Your task to perform on an android device: set the stopwatch Image 0: 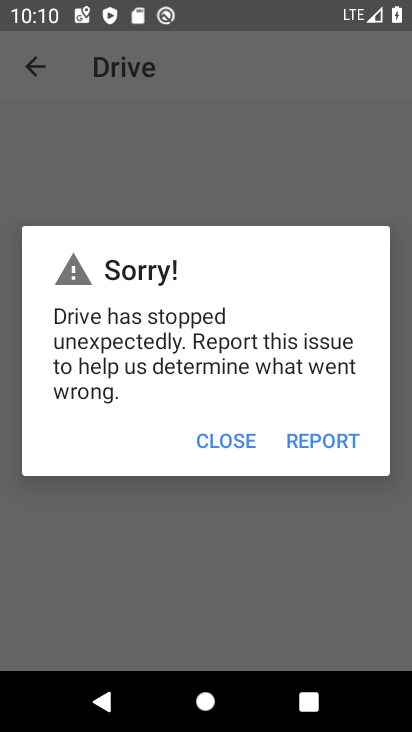
Step 0: press home button
Your task to perform on an android device: set the stopwatch Image 1: 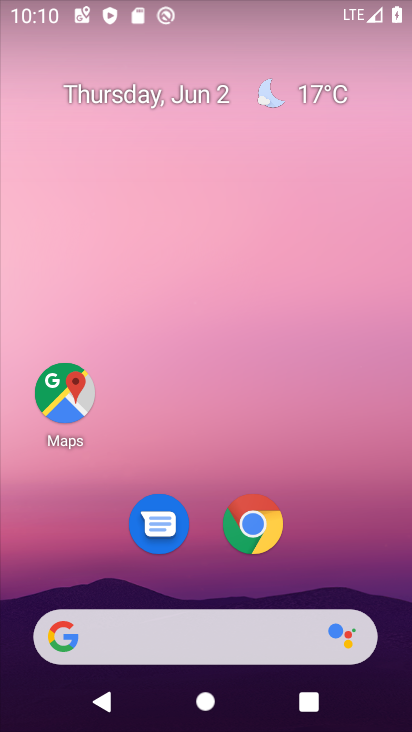
Step 1: drag from (196, 452) to (234, 0)
Your task to perform on an android device: set the stopwatch Image 2: 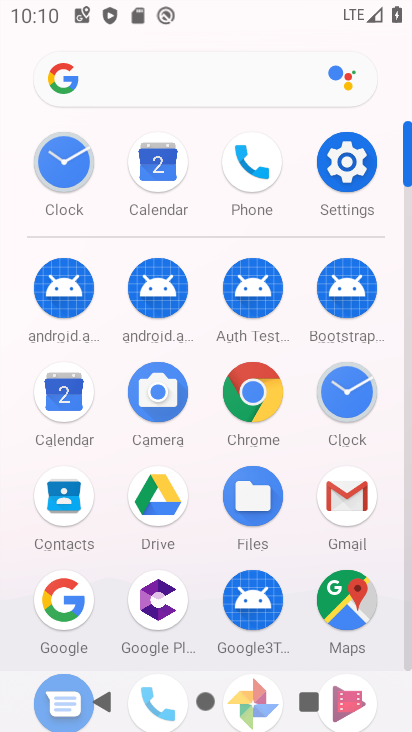
Step 2: click (73, 149)
Your task to perform on an android device: set the stopwatch Image 3: 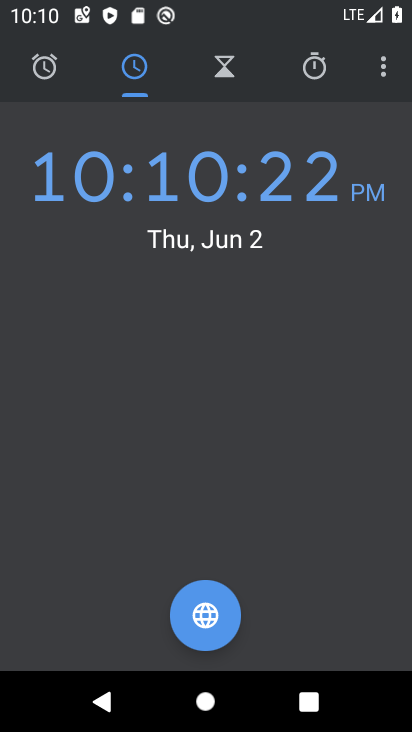
Step 3: click (311, 72)
Your task to perform on an android device: set the stopwatch Image 4: 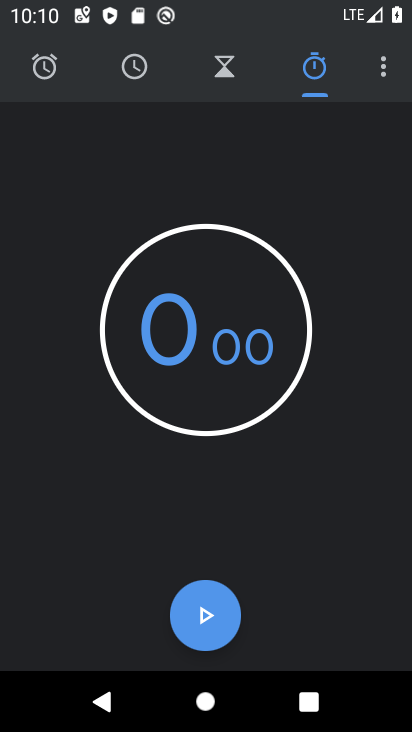
Step 4: task complete